Your task to perform on an android device: toggle show notifications on the lock screen Image 0: 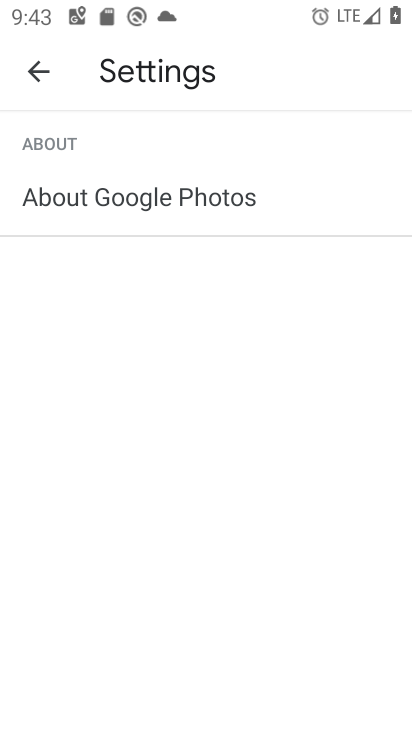
Step 0: press home button
Your task to perform on an android device: toggle show notifications on the lock screen Image 1: 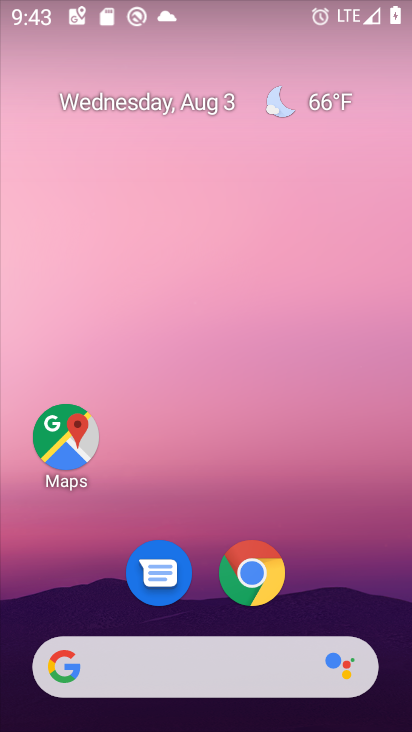
Step 1: drag from (337, 625) to (336, 40)
Your task to perform on an android device: toggle show notifications on the lock screen Image 2: 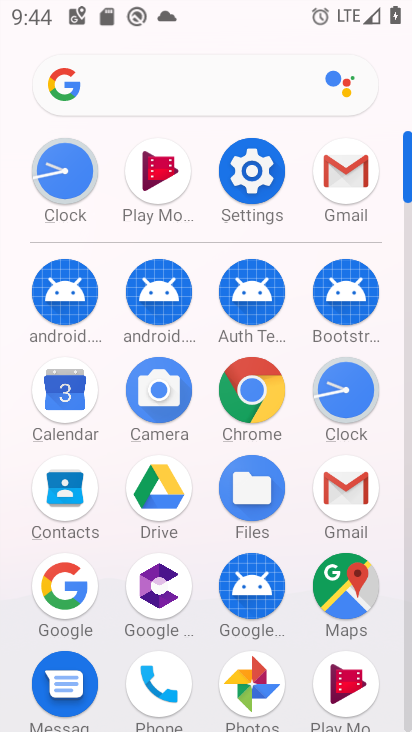
Step 2: click (265, 178)
Your task to perform on an android device: toggle show notifications on the lock screen Image 3: 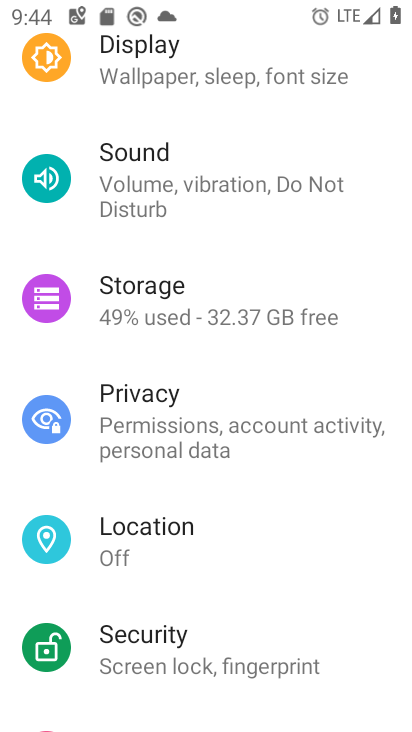
Step 3: drag from (265, 178) to (263, 535)
Your task to perform on an android device: toggle show notifications on the lock screen Image 4: 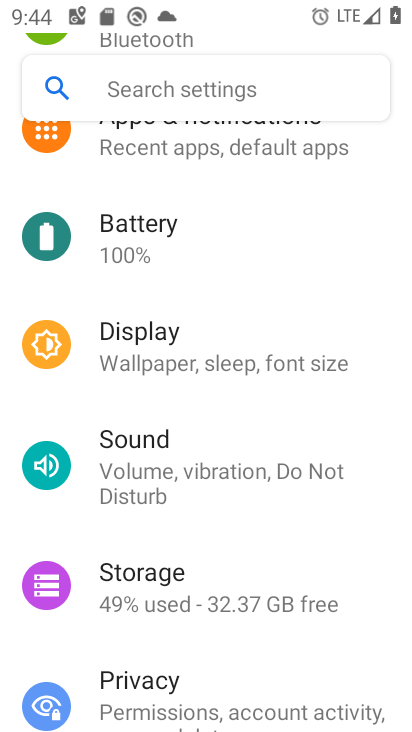
Step 4: drag from (235, 241) to (250, 549)
Your task to perform on an android device: toggle show notifications on the lock screen Image 5: 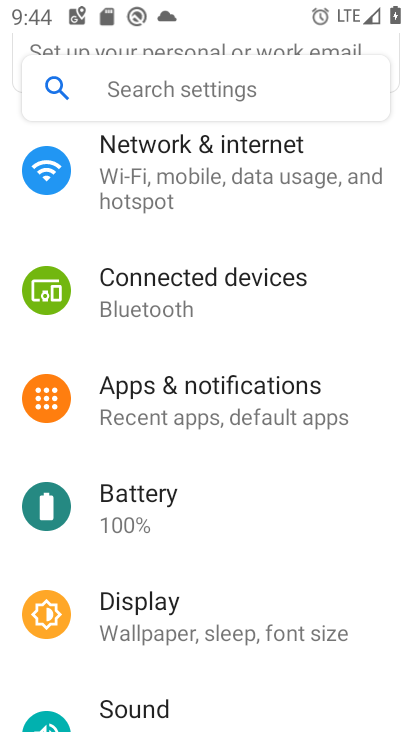
Step 5: click (235, 403)
Your task to perform on an android device: toggle show notifications on the lock screen Image 6: 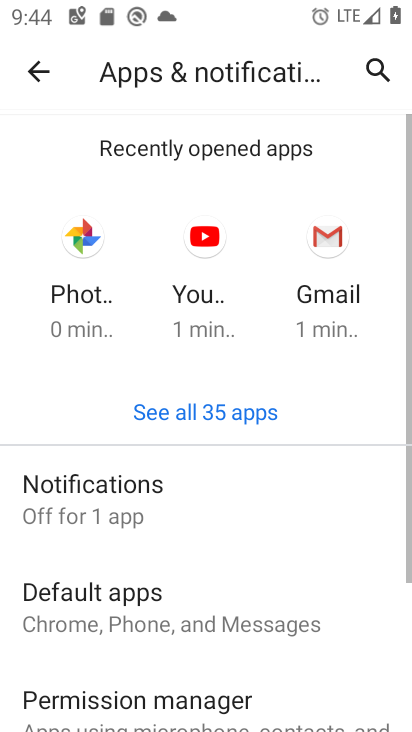
Step 6: click (84, 498)
Your task to perform on an android device: toggle show notifications on the lock screen Image 7: 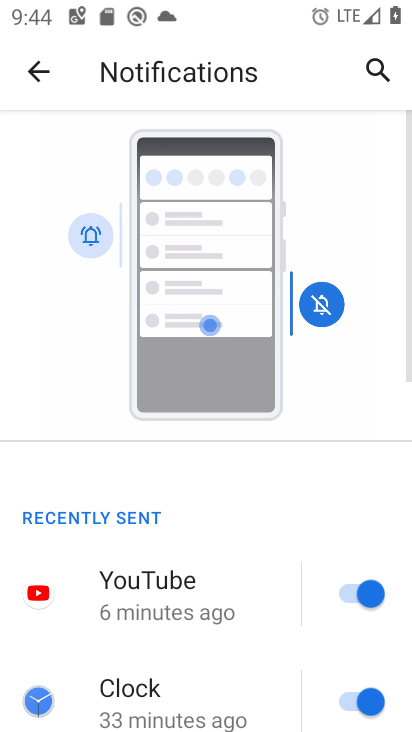
Step 7: drag from (216, 538) to (218, 160)
Your task to perform on an android device: toggle show notifications on the lock screen Image 8: 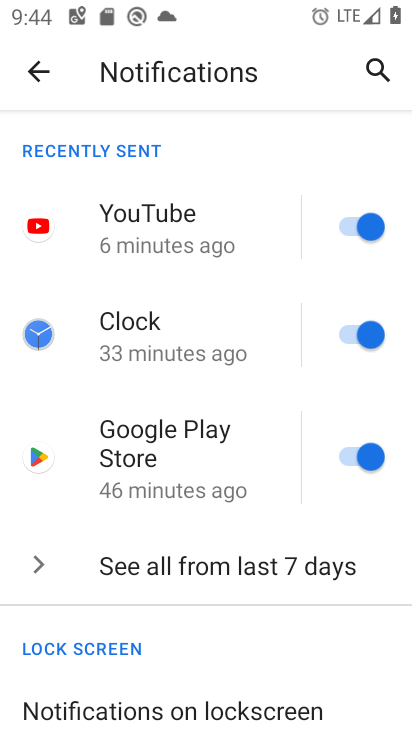
Step 8: drag from (188, 564) to (192, 271)
Your task to perform on an android device: toggle show notifications on the lock screen Image 9: 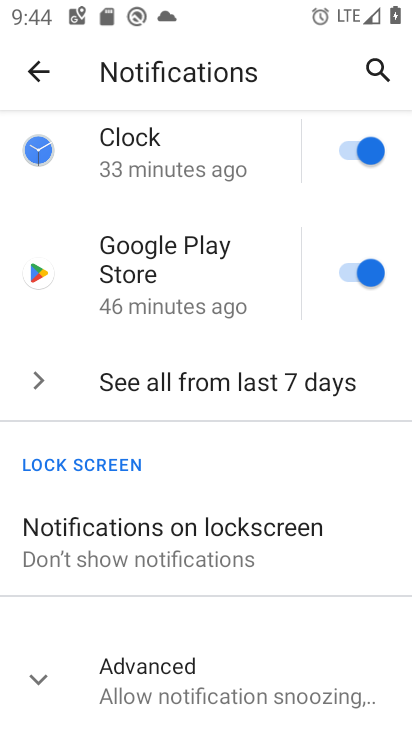
Step 9: click (149, 539)
Your task to perform on an android device: toggle show notifications on the lock screen Image 10: 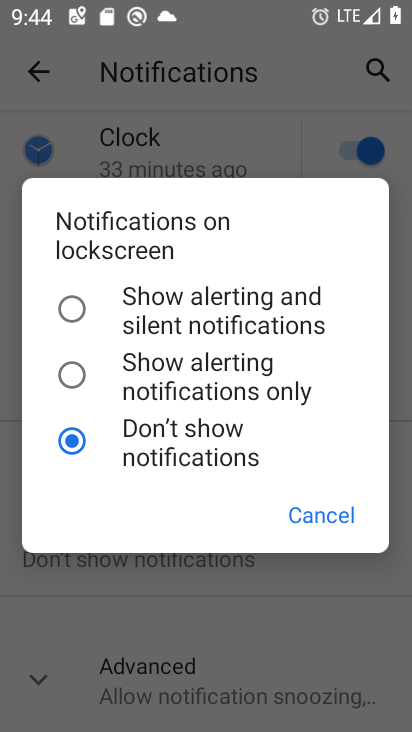
Step 10: click (71, 305)
Your task to perform on an android device: toggle show notifications on the lock screen Image 11: 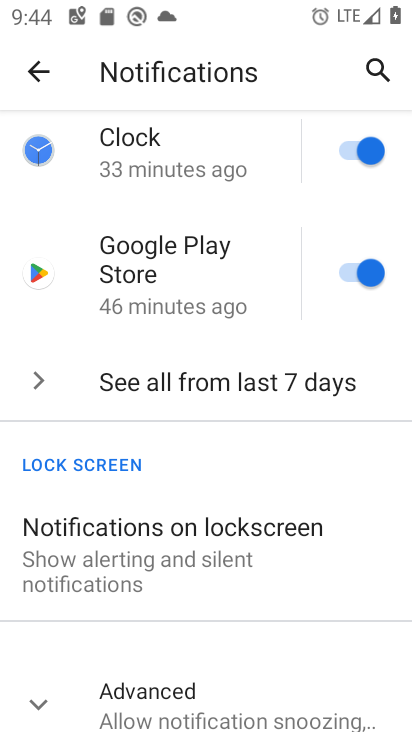
Step 11: task complete